Your task to perform on an android device: View the shopping cart on newegg. Add jbl flip 4 to the cart on newegg, then select checkout. Image 0: 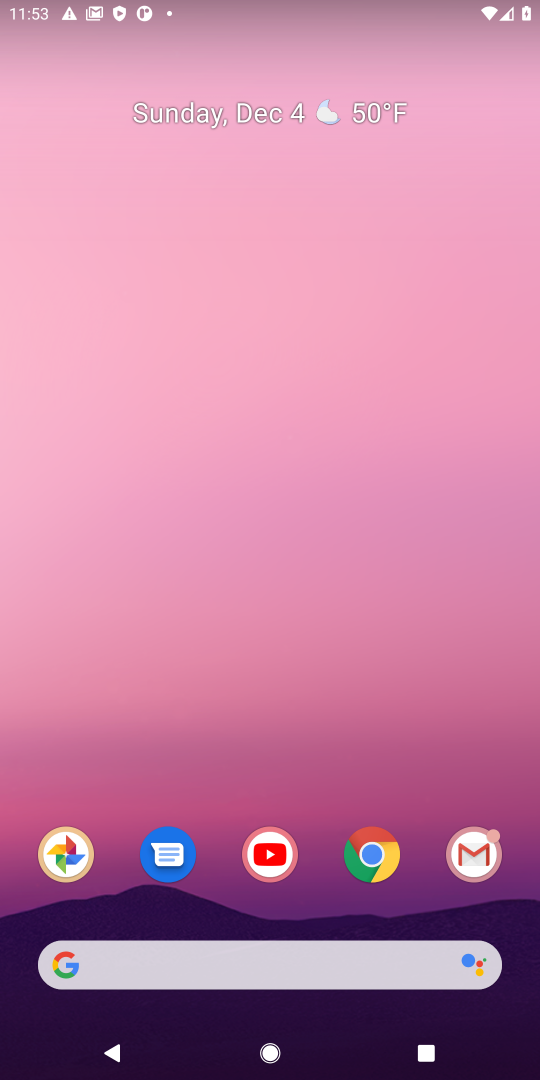
Step 0: click (263, 966)
Your task to perform on an android device: View the shopping cart on newegg. Add jbl flip 4 to the cart on newegg, then select checkout. Image 1: 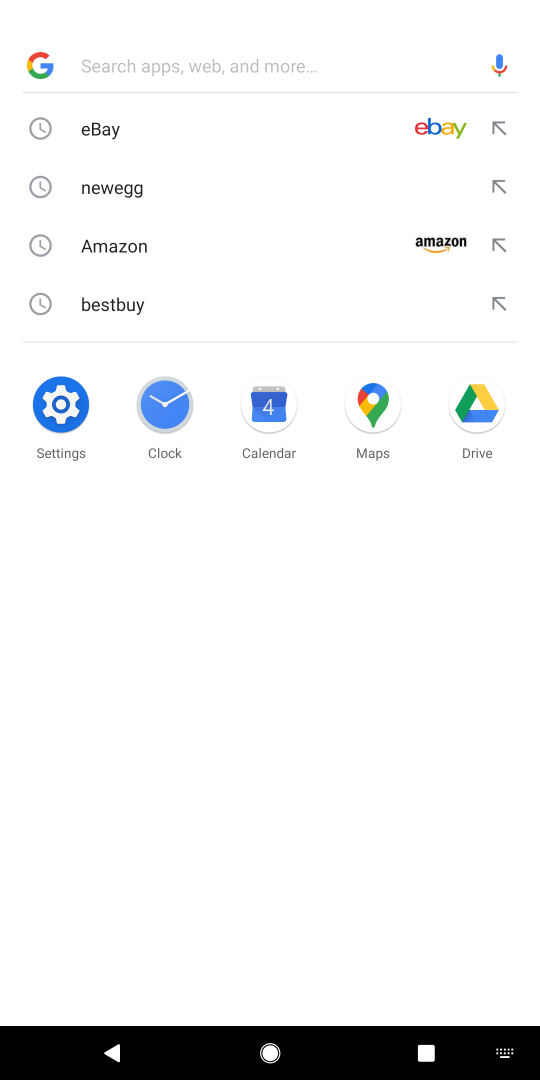
Step 1: click (157, 178)
Your task to perform on an android device: View the shopping cart on newegg. Add jbl flip 4 to the cart on newegg, then select checkout. Image 2: 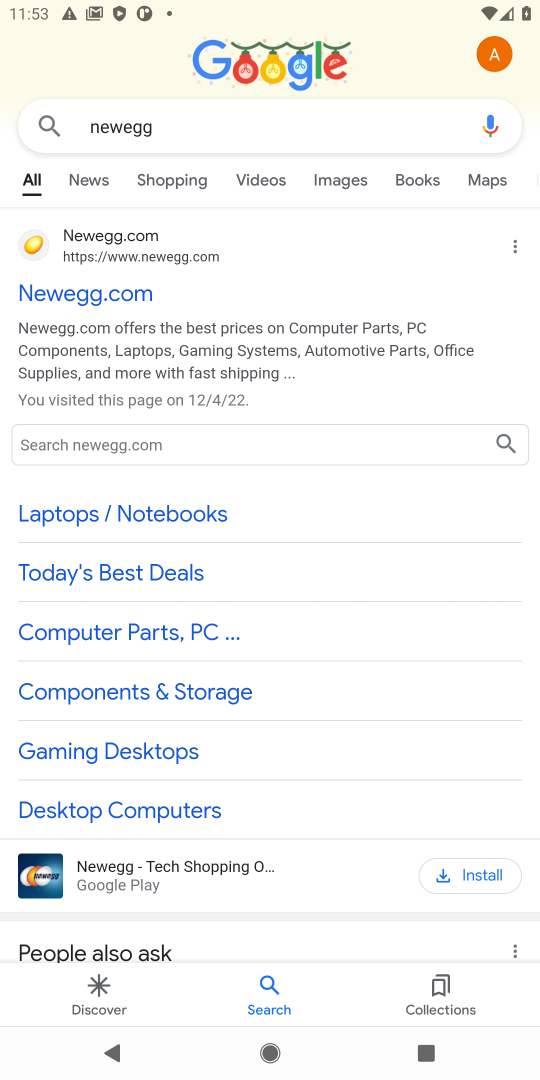
Step 2: click (133, 292)
Your task to perform on an android device: View the shopping cart on newegg. Add jbl flip 4 to the cart on newegg, then select checkout. Image 3: 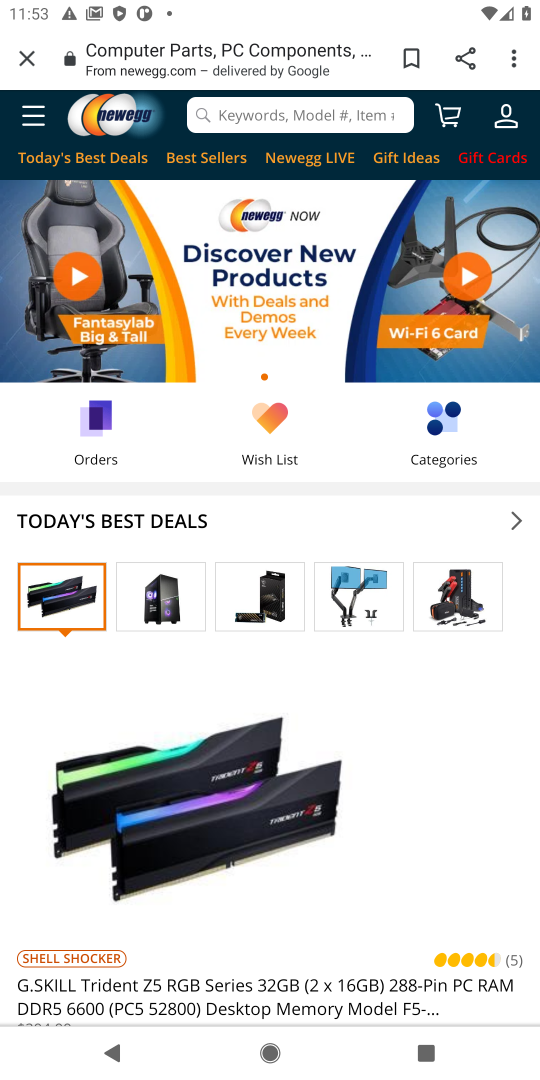
Step 3: click (347, 104)
Your task to perform on an android device: View the shopping cart on newegg. Add jbl flip 4 to the cart on newegg, then select checkout. Image 4: 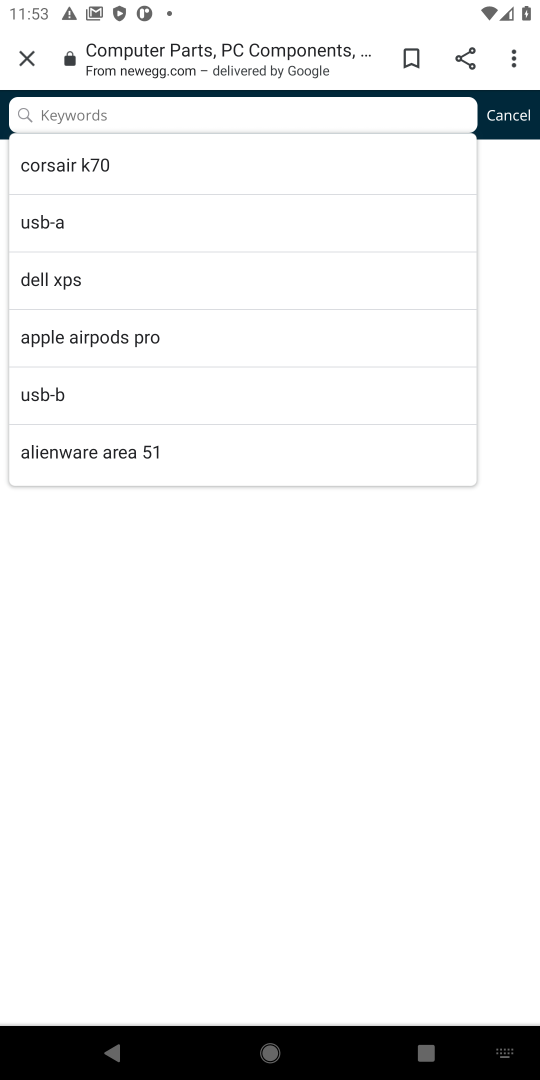
Step 4: type "flip 4"
Your task to perform on an android device: View the shopping cart on newegg. Add jbl flip 4 to the cart on newegg, then select checkout. Image 5: 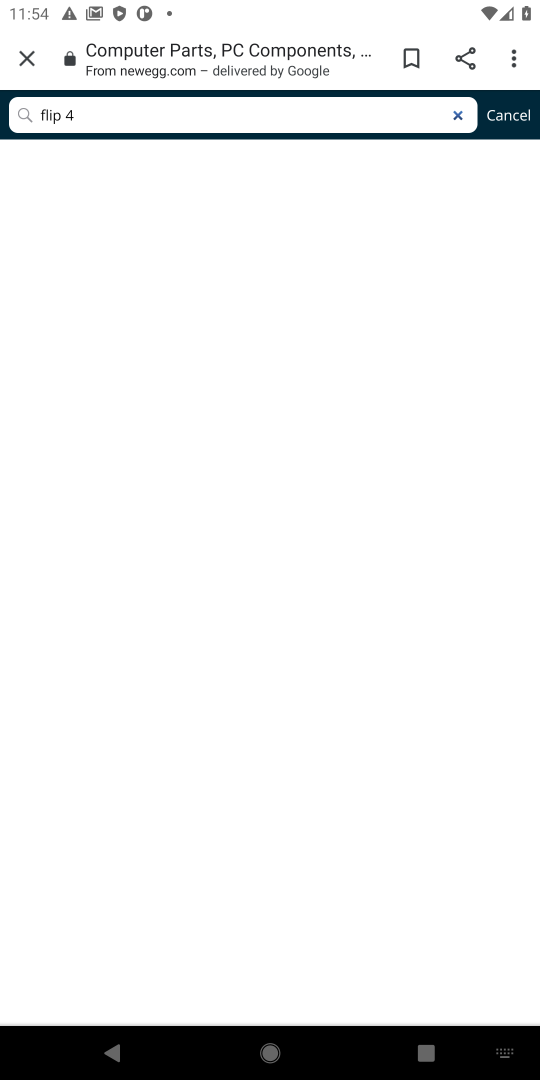
Step 5: task complete